Your task to perform on an android device: open app "Microsoft Excel" (install if not already installed) Image 0: 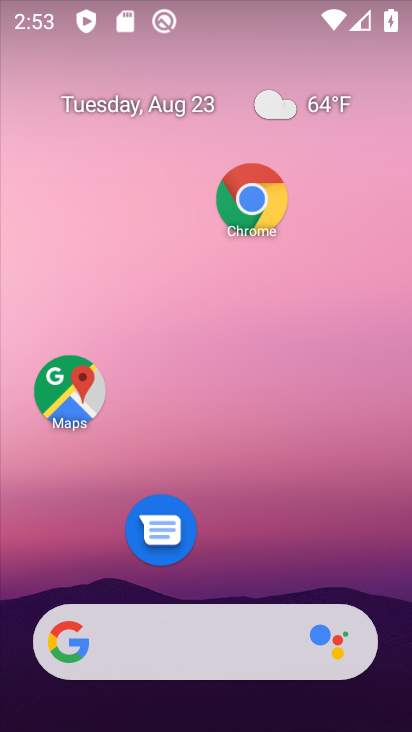
Step 0: drag from (207, 432) to (327, 31)
Your task to perform on an android device: open app "Microsoft Excel" (install if not already installed) Image 1: 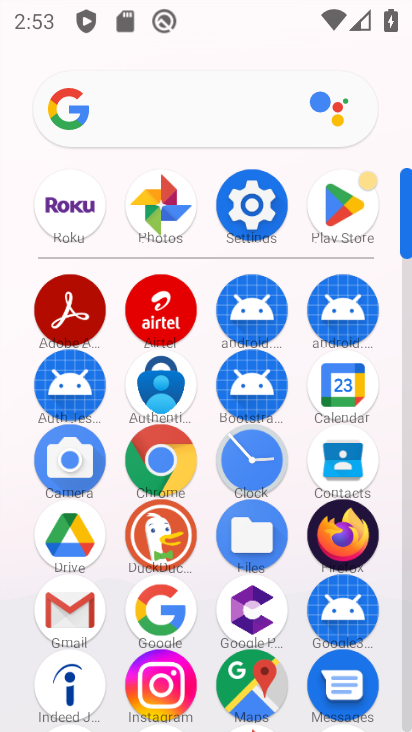
Step 1: click (349, 201)
Your task to perform on an android device: open app "Microsoft Excel" (install if not already installed) Image 2: 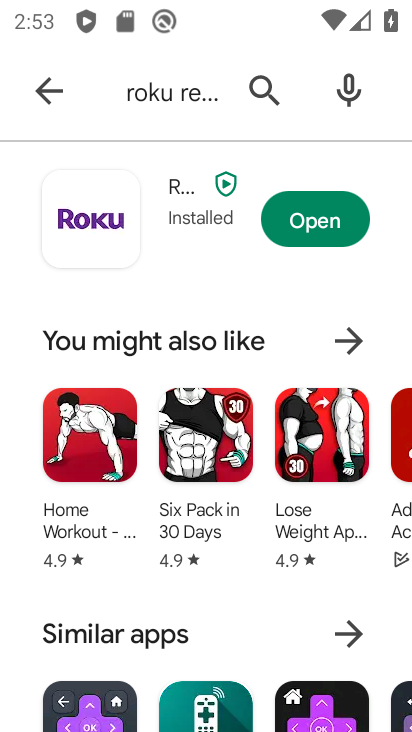
Step 2: click (183, 107)
Your task to perform on an android device: open app "Microsoft Excel" (install if not already installed) Image 3: 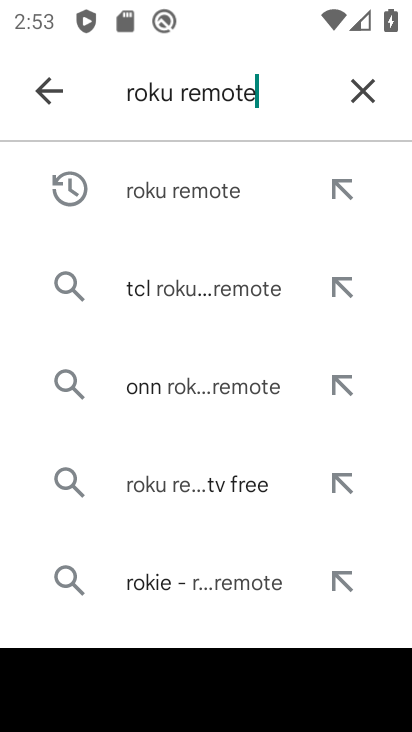
Step 3: click (356, 86)
Your task to perform on an android device: open app "Microsoft Excel" (install if not already installed) Image 4: 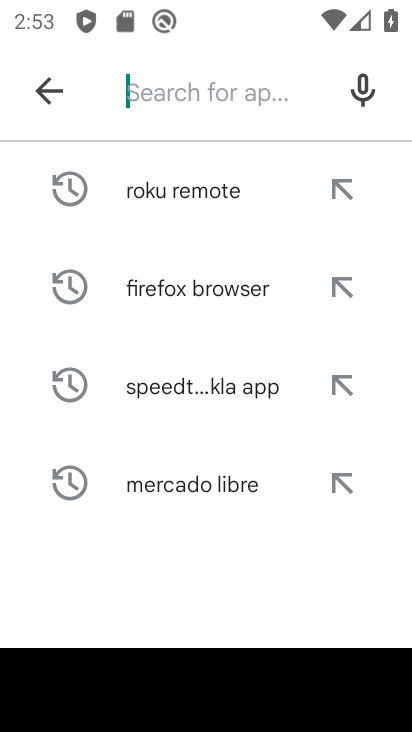
Step 4: type "MIcrosoft Excel"
Your task to perform on an android device: open app "Microsoft Excel" (install if not already installed) Image 5: 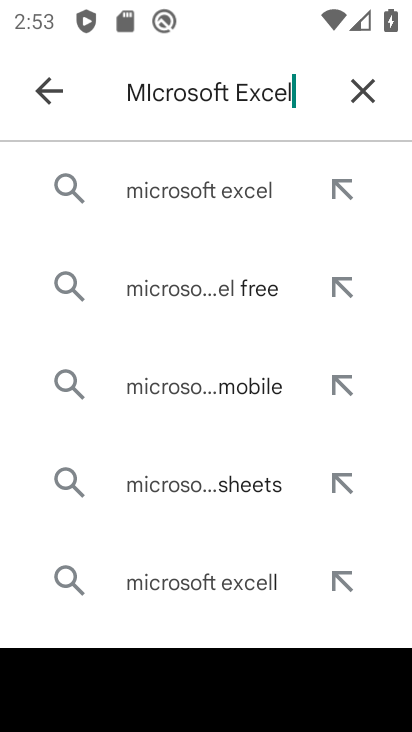
Step 5: click (173, 192)
Your task to perform on an android device: open app "Microsoft Excel" (install if not already installed) Image 6: 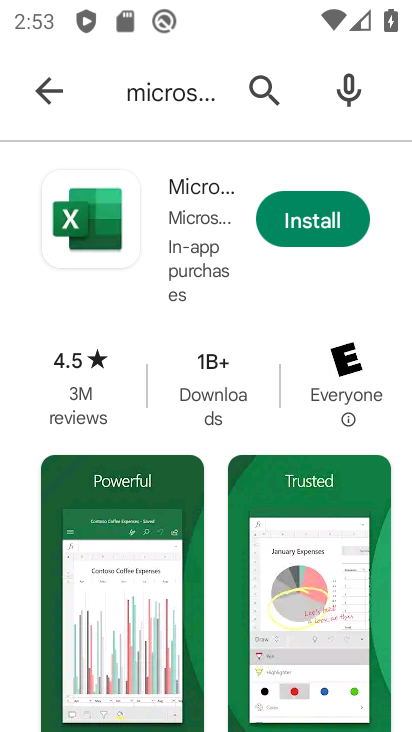
Step 6: click (305, 215)
Your task to perform on an android device: open app "Microsoft Excel" (install if not already installed) Image 7: 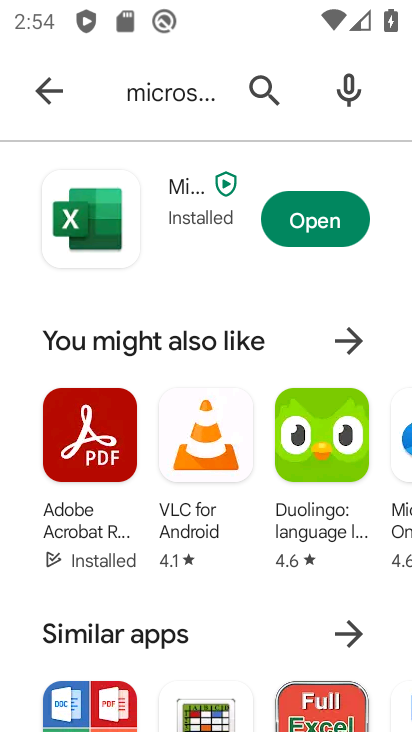
Step 7: click (320, 206)
Your task to perform on an android device: open app "Microsoft Excel" (install if not already installed) Image 8: 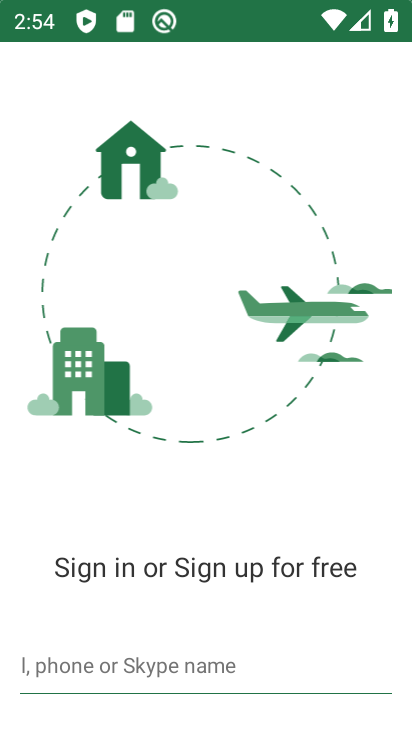
Step 8: drag from (185, 688) to (191, 496)
Your task to perform on an android device: open app "Microsoft Excel" (install if not already installed) Image 9: 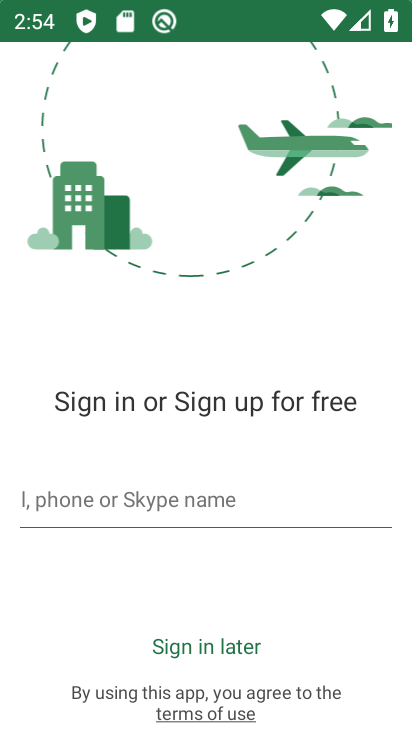
Step 9: drag from (232, 664) to (219, 522)
Your task to perform on an android device: open app "Microsoft Excel" (install if not already installed) Image 10: 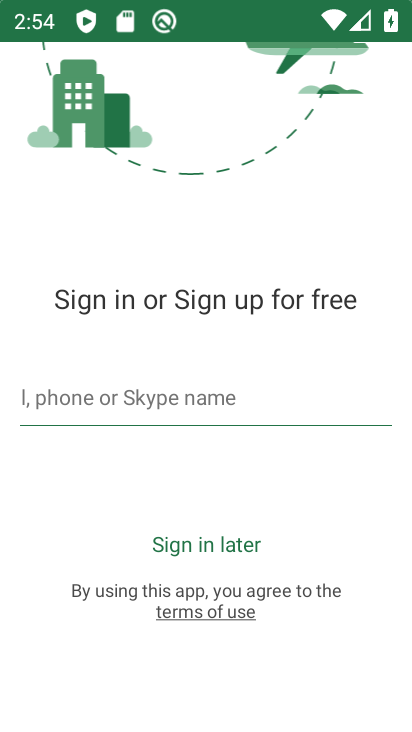
Step 10: click (194, 538)
Your task to perform on an android device: open app "Microsoft Excel" (install if not already installed) Image 11: 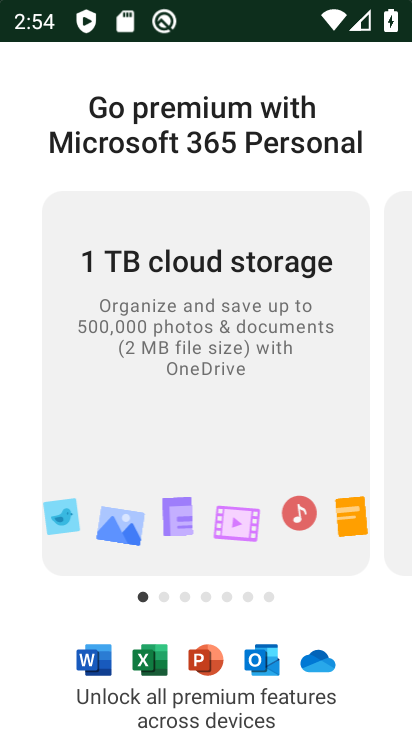
Step 11: drag from (204, 619) to (206, 280)
Your task to perform on an android device: open app "Microsoft Excel" (install if not already installed) Image 12: 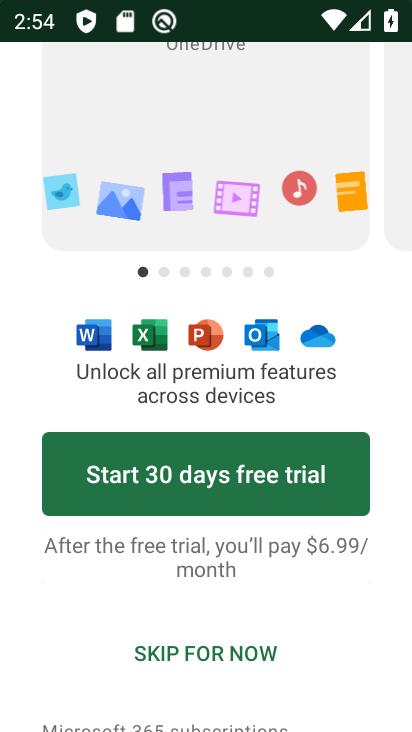
Step 12: click (224, 656)
Your task to perform on an android device: open app "Microsoft Excel" (install if not already installed) Image 13: 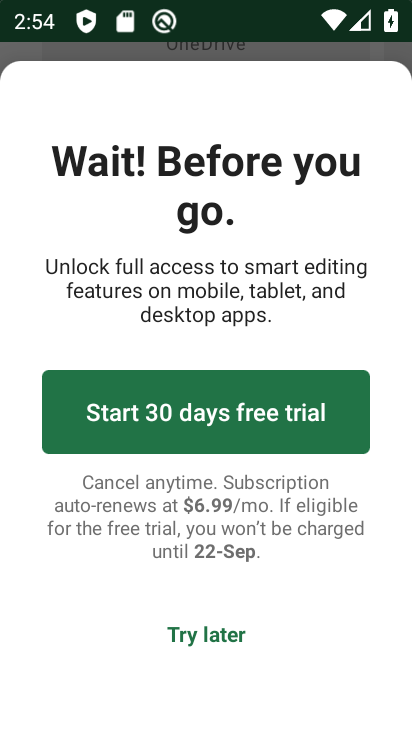
Step 13: click (193, 632)
Your task to perform on an android device: open app "Microsoft Excel" (install if not already installed) Image 14: 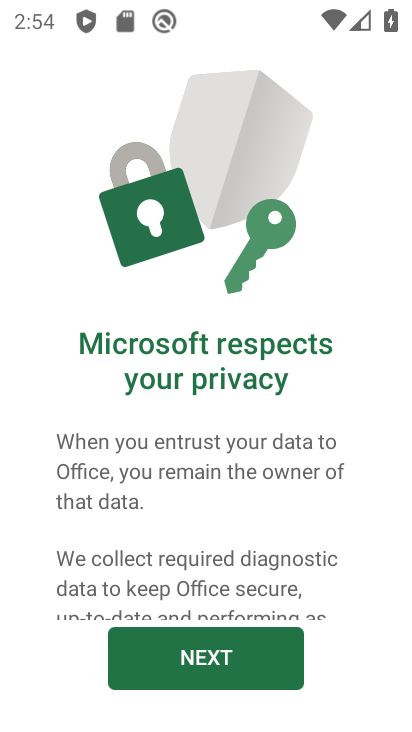
Step 14: click (208, 660)
Your task to perform on an android device: open app "Microsoft Excel" (install if not already installed) Image 15: 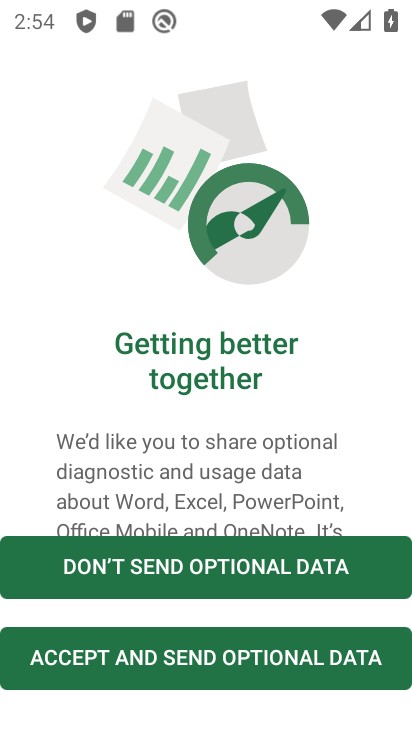
Step 15: click (255, 556)
Your task to perform on an android device: open app "Microsoft Excel" (install if not already installed) Image 16: 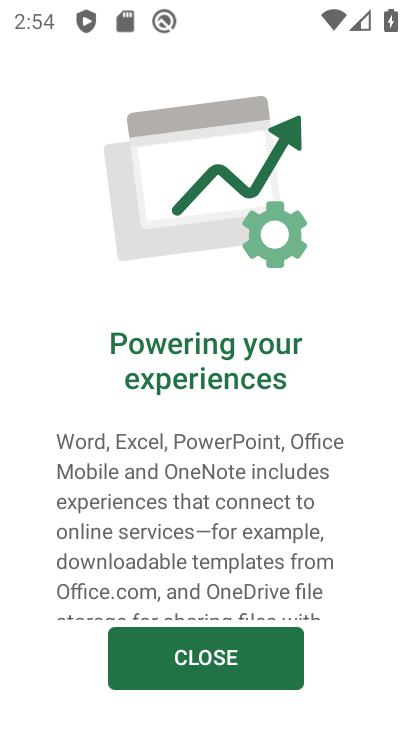
Step 16: click (228, 659)
Your task to perform on an android device: open app "Microsoft Excel" (install if not already installed) Image 17: 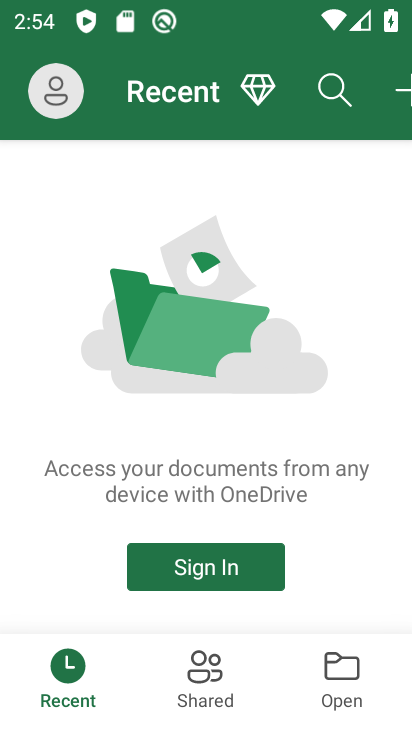
Step 17: task complete